Your task to perform on an android device: uninstall "Yahoo Mail" Image 0: 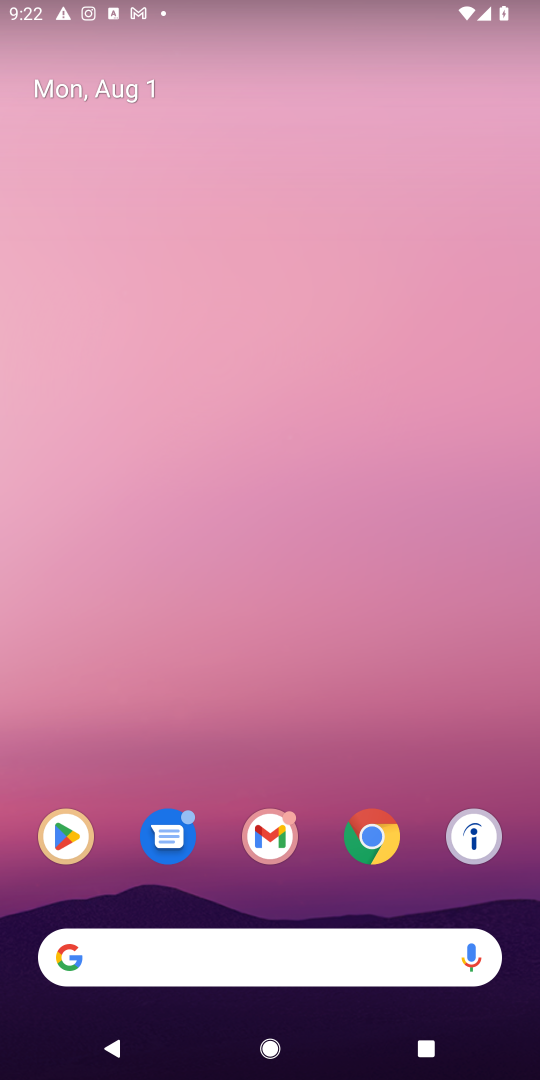
Step 0: click (64, 837)
Your task to perform on an android device: uninstall "Yahoo Mail" Image 1: 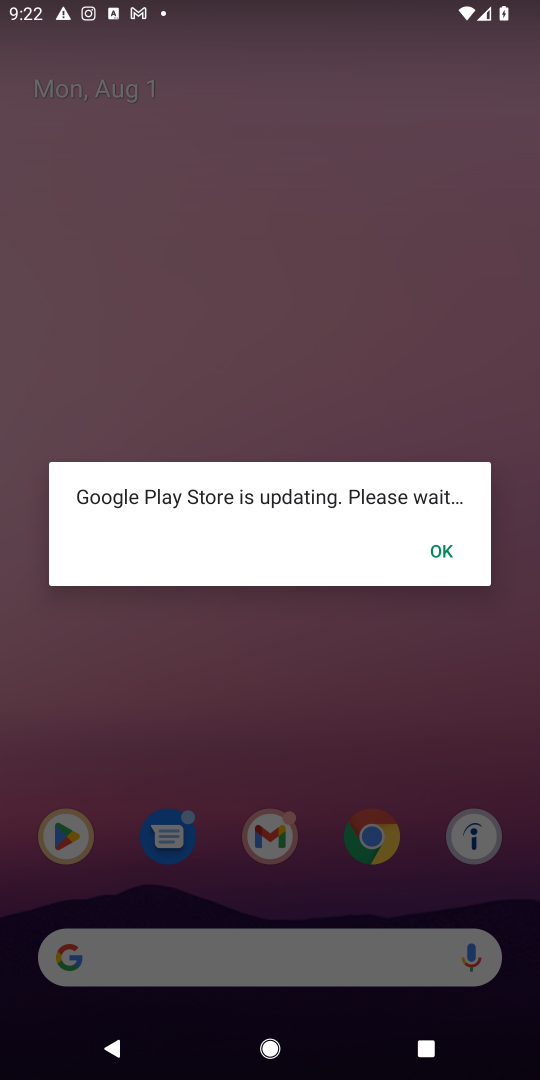
Step 1: click (448, 325)
Your task to perform on an android device: uninstall "Yahoo Mail" Image 2: 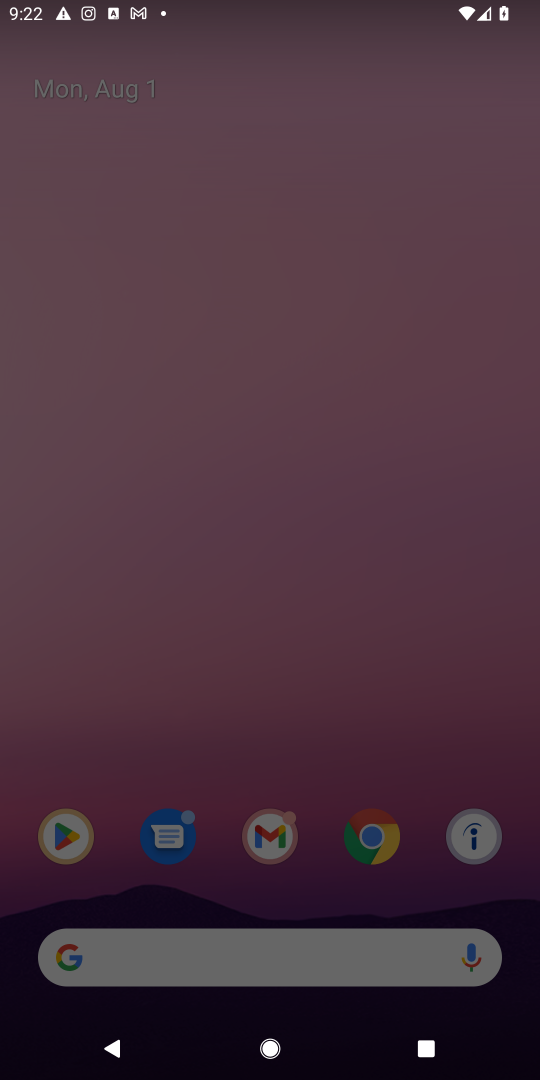
Step 2: click (333, 642)
Your task to perform on an android device: uninstall "Yahoo Mail" Image 3: 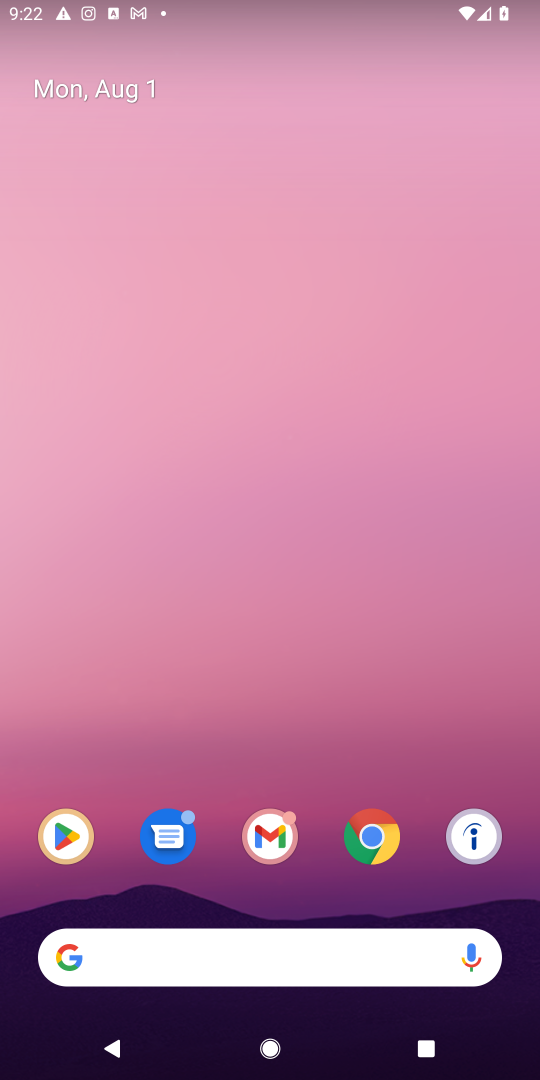
Step 3: press home button
Your task to perform on an android device: uninstall "Yahoo Mail" Image 4: 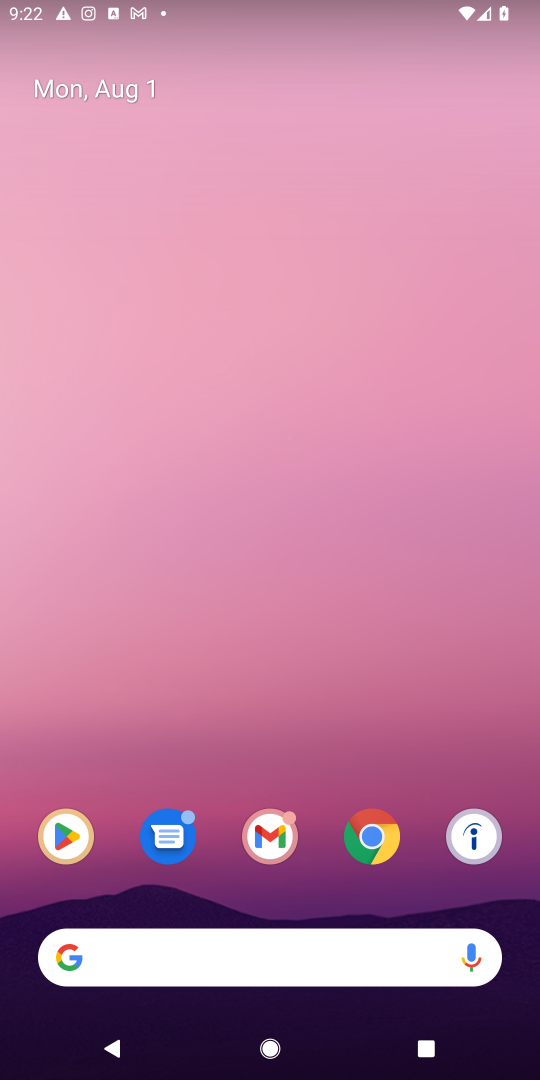
Step 4: click (79, 833)
Your task to perform on an android device: uninstall "Yahoo Mail" Image 5: 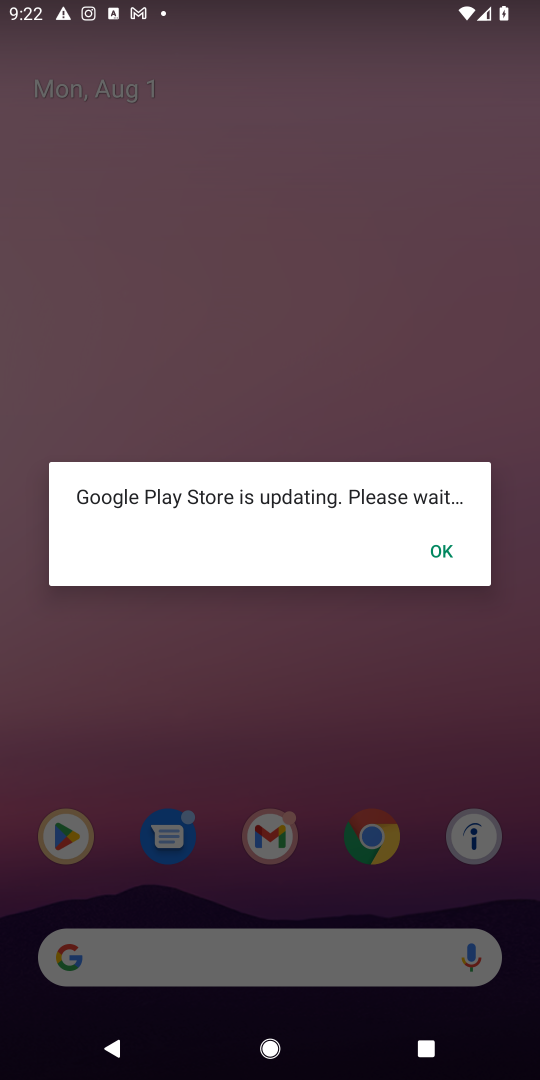
Step 5: click (446, 551)
Your task to perform on an android device: uninstall "Yahoo Mail" Image 6: 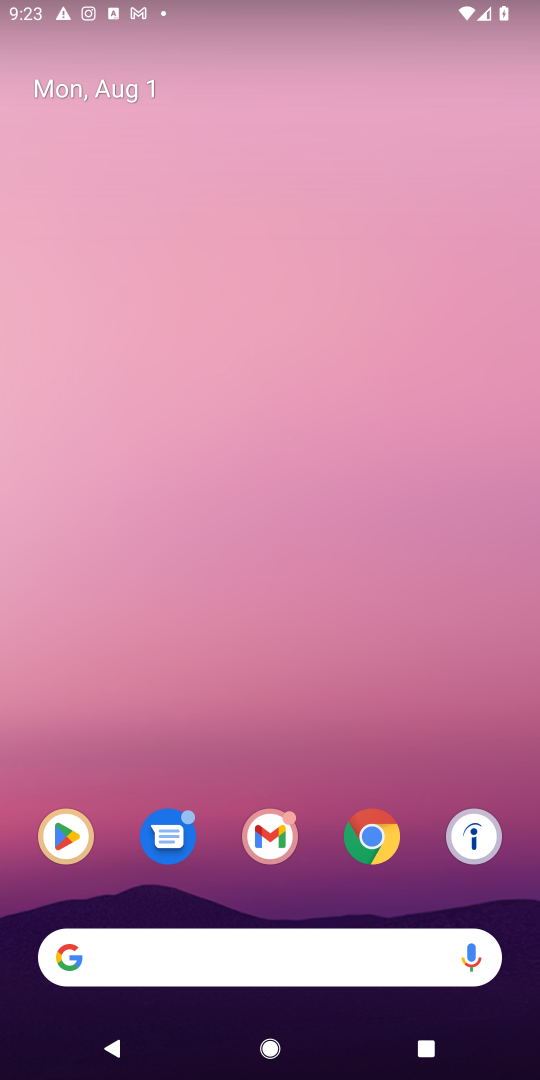
Step 6: click (60, 843)
Your task to perform on an android device: uninstall "Yahoo Mail" Image 7: 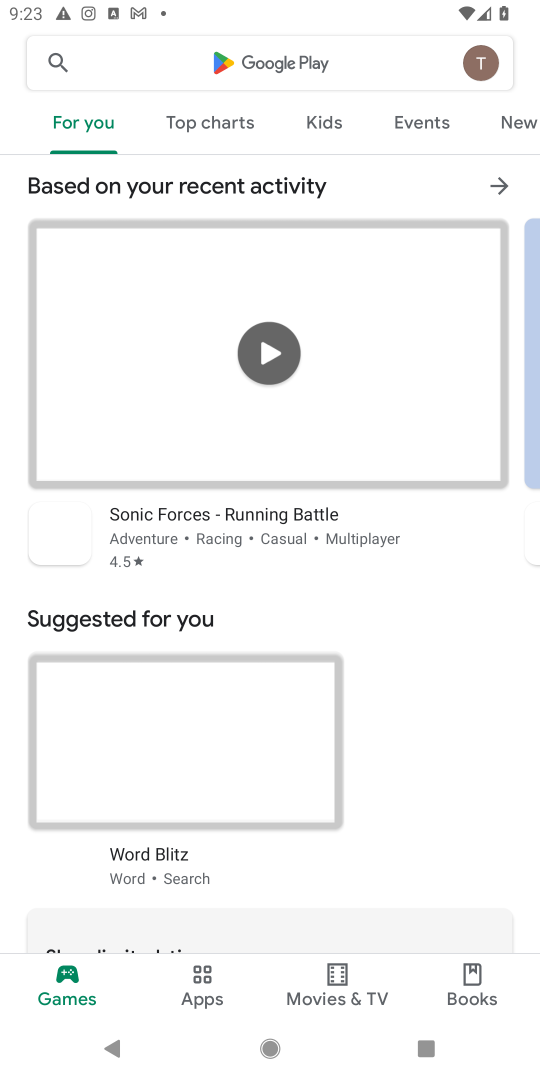
Step 7: click (404, 54)
Your task to perform on an android device: uninstall "Yahoo Mail" Image 8: 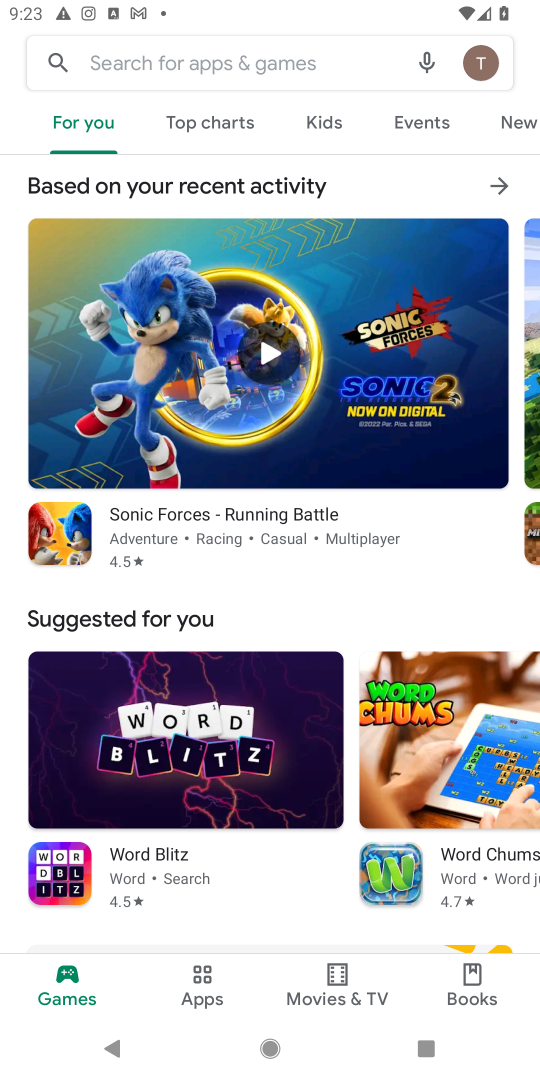
Step 8: type "Yahoo Mail"
Your task to perform on an android device: uninstall "Yahoo Mail" Image 9: 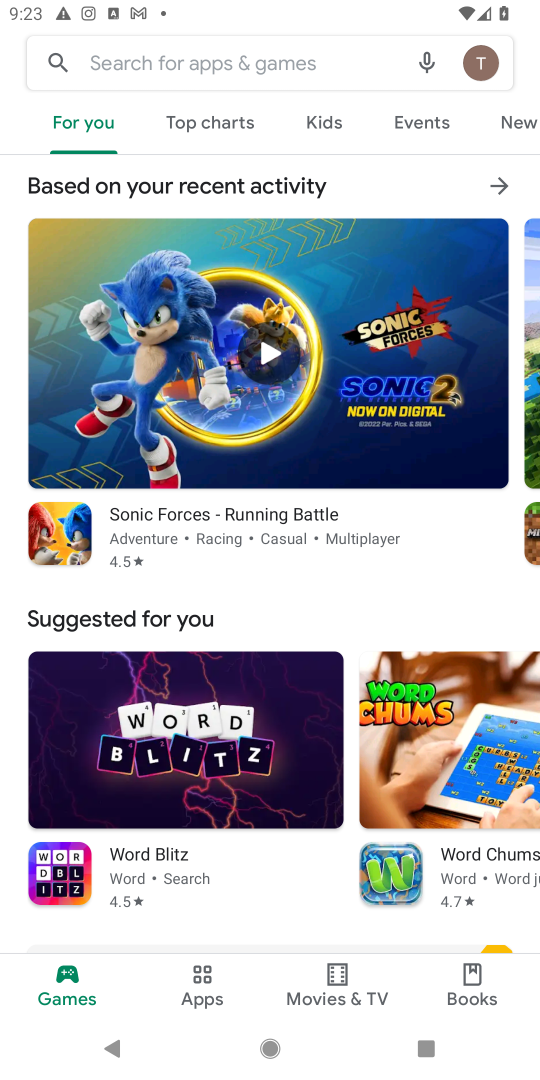
Step 9: click (195, 61)
Your task to perform on an android device: uninstall "Yahoo Mail" Image 10: 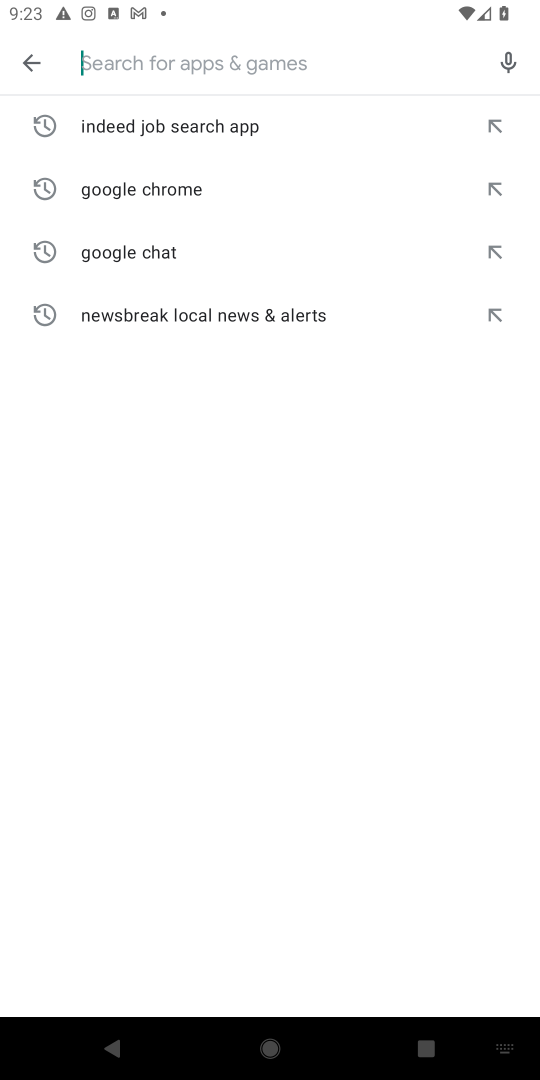
Step 10: type "Yahoo Mail"
Your task to perform on an android device: uninstall "Yahoo Mail" Image 11: 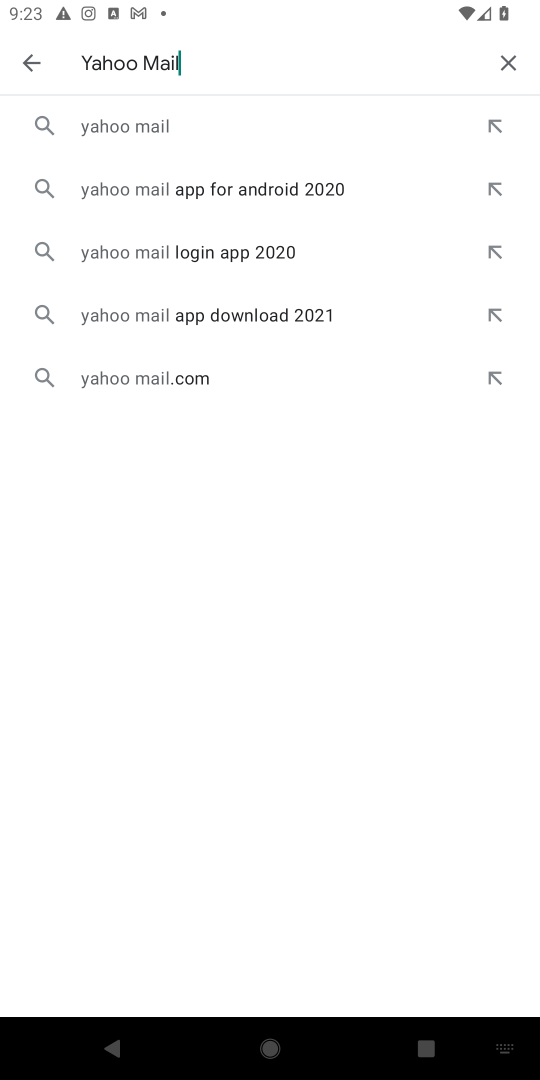
Step 11: click (164, 122)
Your task to perform on an android device: uninstall "Yahoo Mail" Image 12: 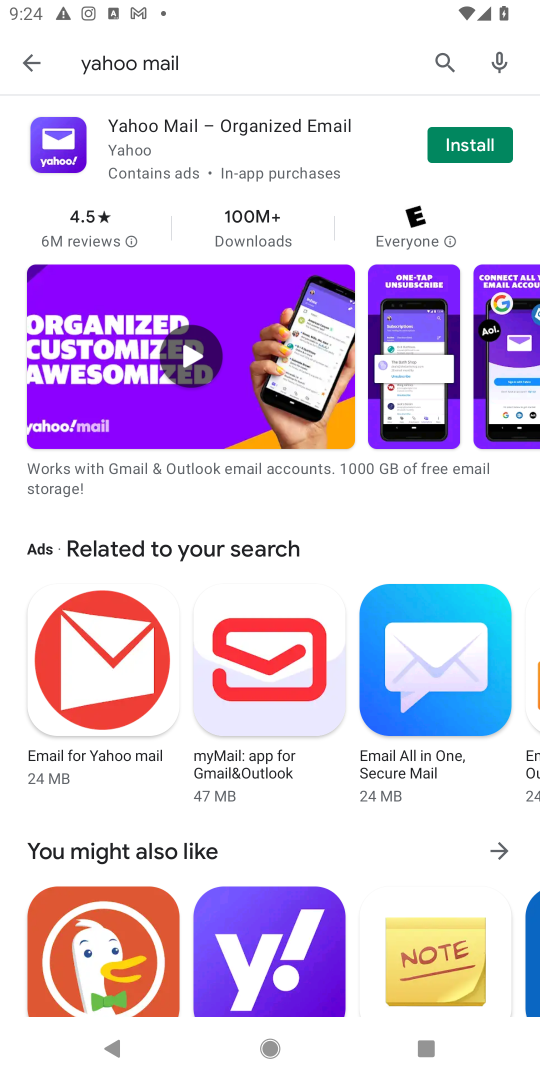
Step 12: task complete